Your task to perform on an android device: Open Google Chrome and click the shortcut for Amazon.com Image 0: 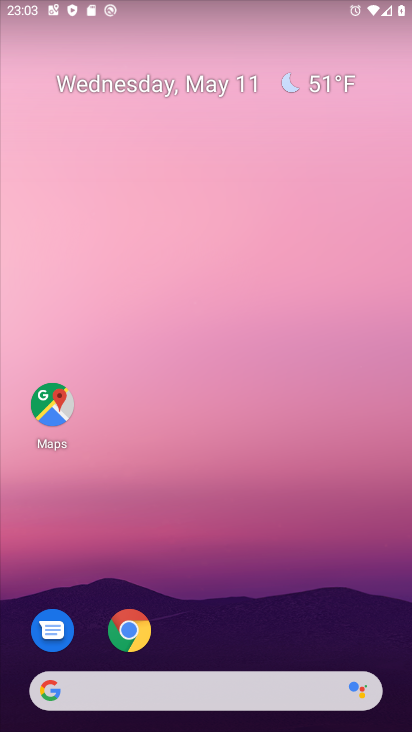
Step 0: click (131, 628)
Your task to perform on an android device: Open Google Chrome and click the shortcut for Amazon.com Image 1: 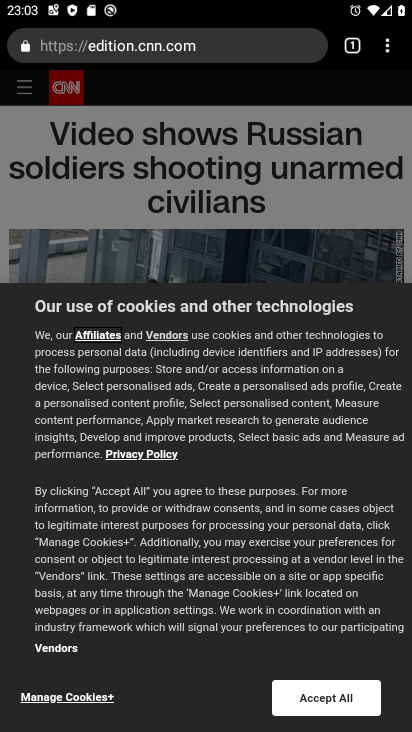
Step 1: click (390, 54)
Your task to perform on an android device: Open Google Chrome and click the shortcut for Amazon.com Image 2: 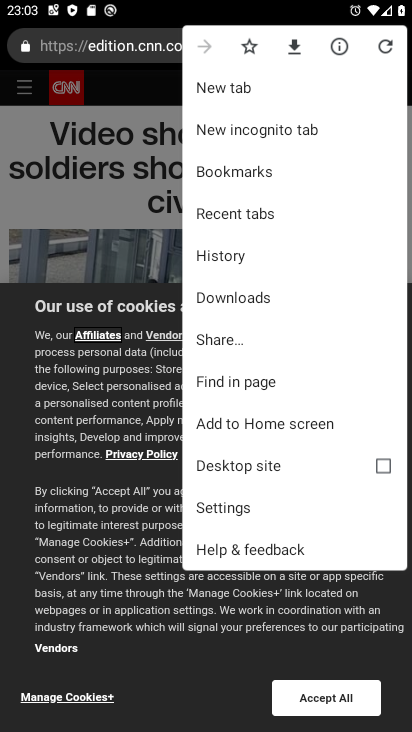
Step 2: click (240, 88)
Your task to perform on an android device: Open Google Chrome and click the shortcut for Amazon.com Image 3: 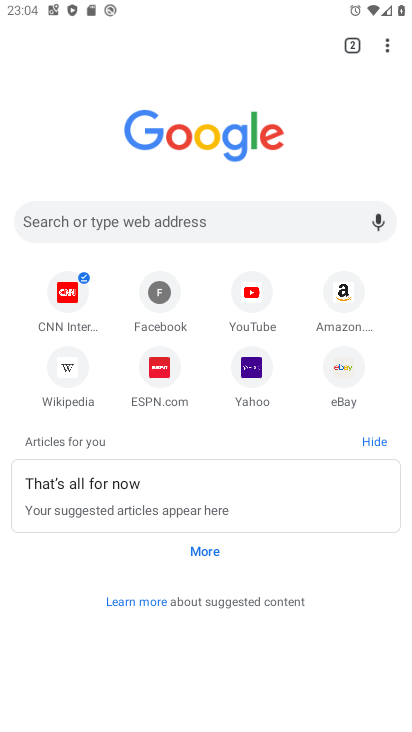
Step 3: click (343, 302)
Your task to perform on an android device: Open Google Chrome and click the shortcut for Amazon.com Image 4: 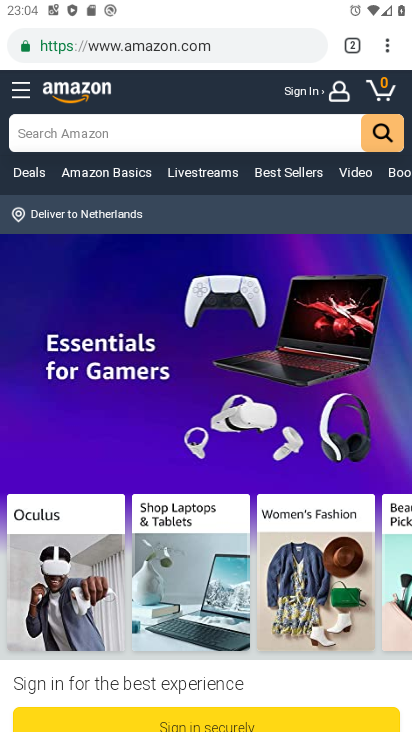
Step 4: task complete